Your task to perform on an android device: change alarm snooze length Image 0: 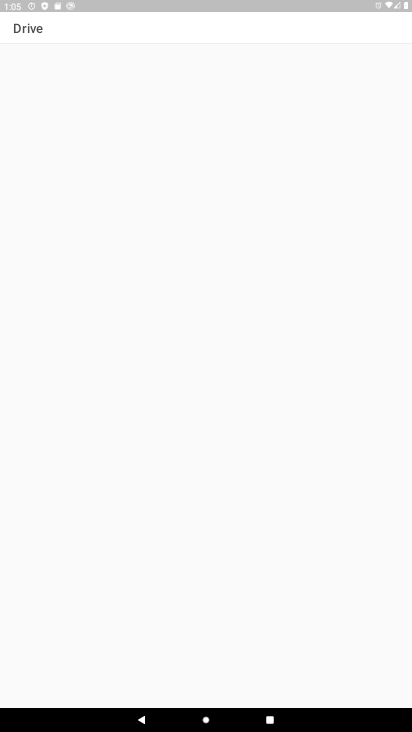
Step 0: press home button
Your task to perform on an android device: change alarm snooze length Image 1: 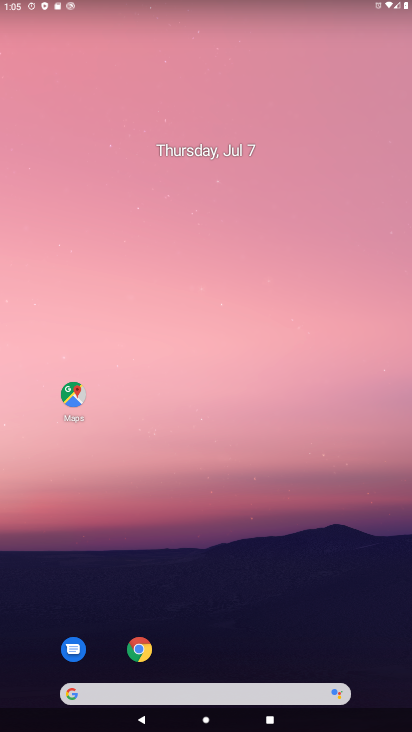
Step 1: drag from (199, 674) to (405, 157)
Your task to perform on an android device: change alarm snooze length Image 2: 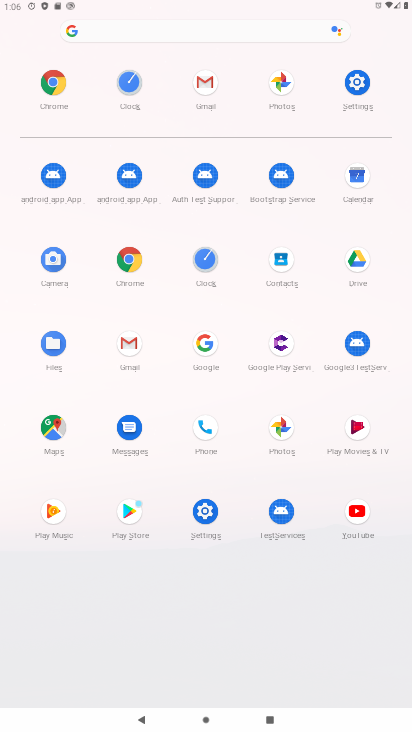
Step 2: click (213, 263)
Your task to perform on an android device: change alarm snooze length Image 3: 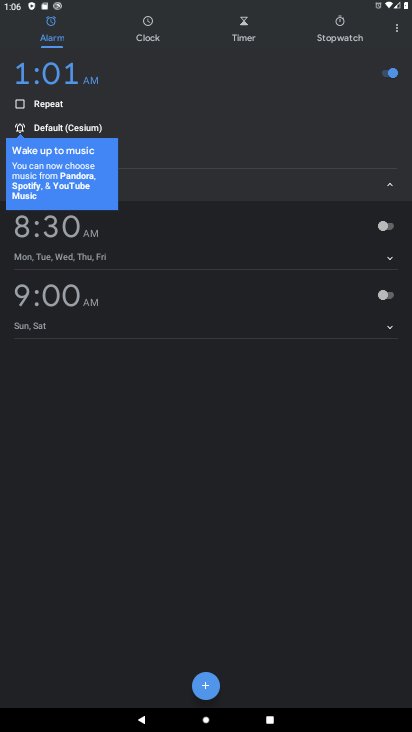
Step 3: click (389, 23)
Your task to perform on an android device: change alarm snooze length Image 4: 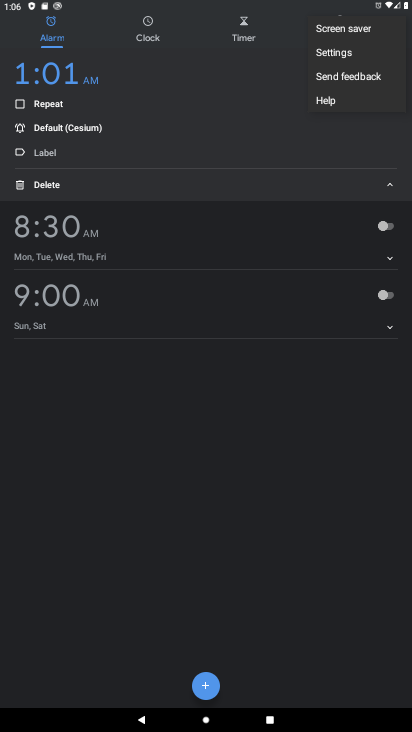
Step 4: click (333, 56)
Your task to perform on an android device: change alarm snooze length Image 5: 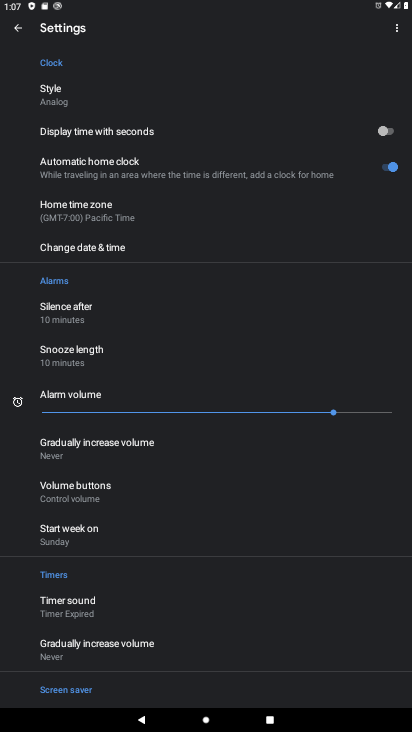
Step 5: click (51, 351)
Your task to perform on an android device: change alarm snooze length Image 6: 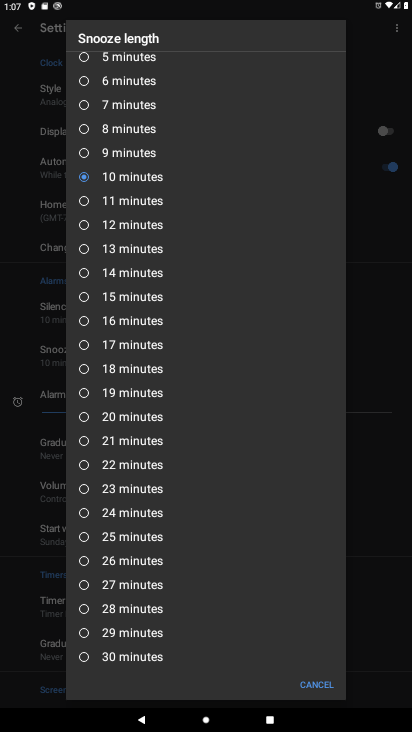
Step 6: click (113, 119)
Your task to perform on an android device: change alarm snooze length Image 7: 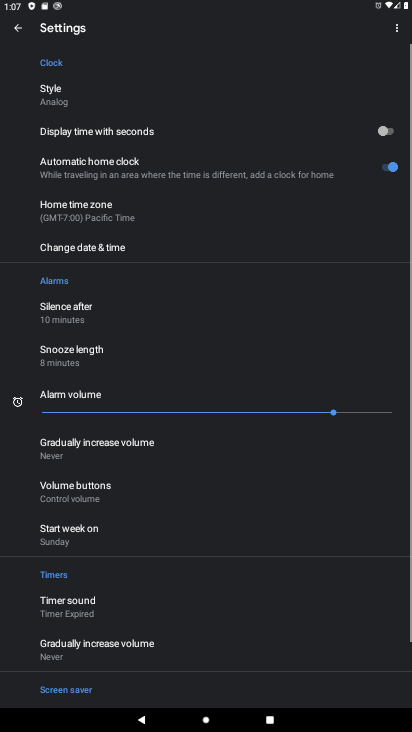
Step 7: task complete